Your task to perform on an android device: turn on wifi Image 0: 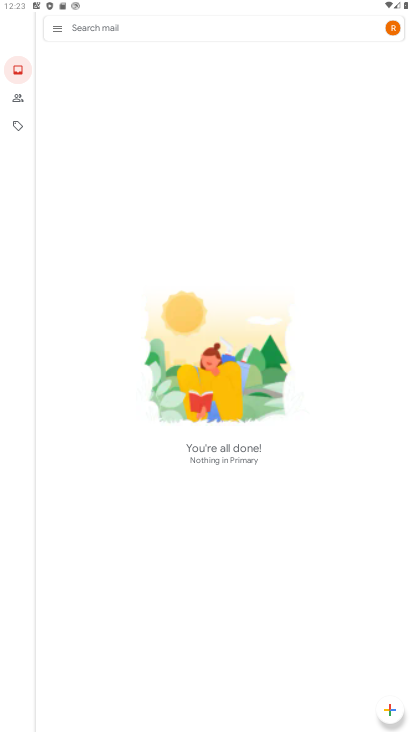
Step 0: press home button
Your task to perform on an android device: turn on wifi Image 1: 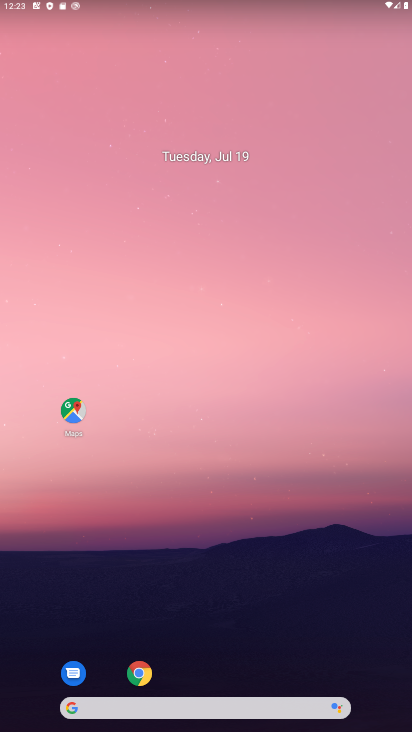
Step 1: drag from (259, 676) to (196, 111)
Your task to perform on an android device: turn on wifi Image 2: 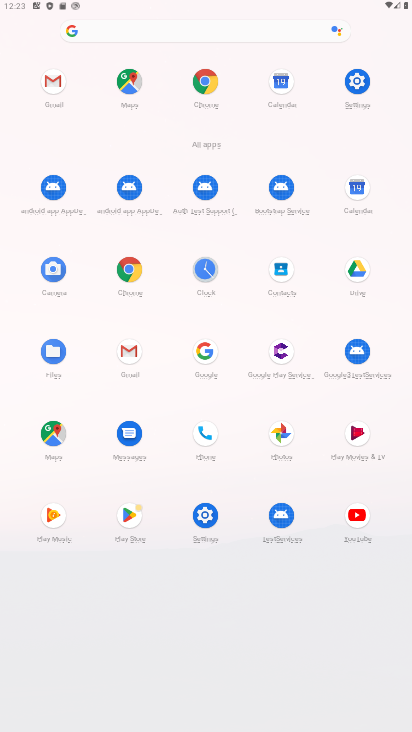
Step 2: click (360, 83)
Your task to perform on an android device: turn on wifi Image 3: 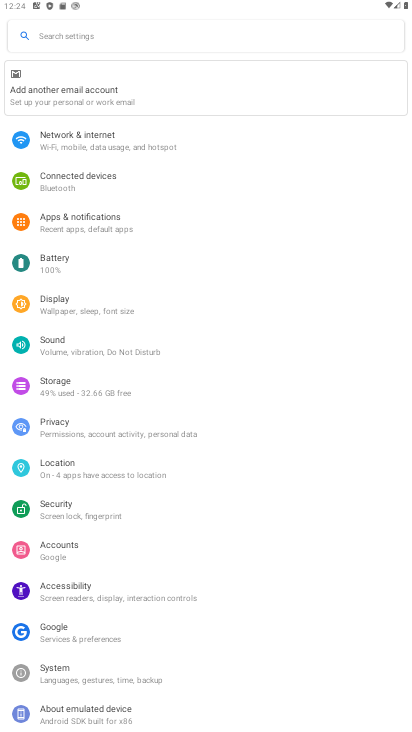
Step 3: click (292, 143)
Your task to perform on an android device: turn on wifi Image 4: 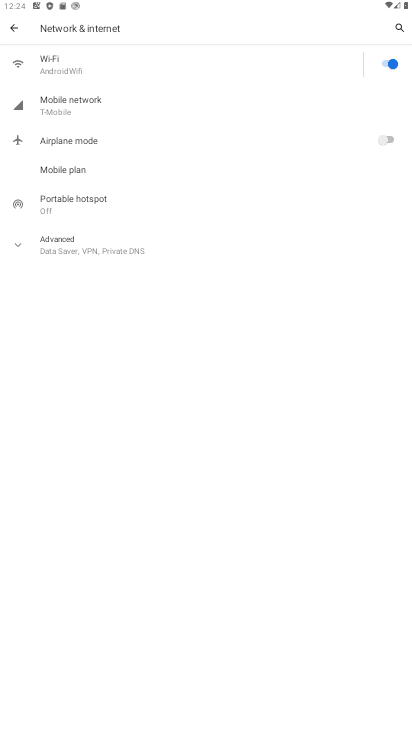
Step 4: task complete